Your task to perform on an android device: Show the shopping cart on newegg.com. Image 0: 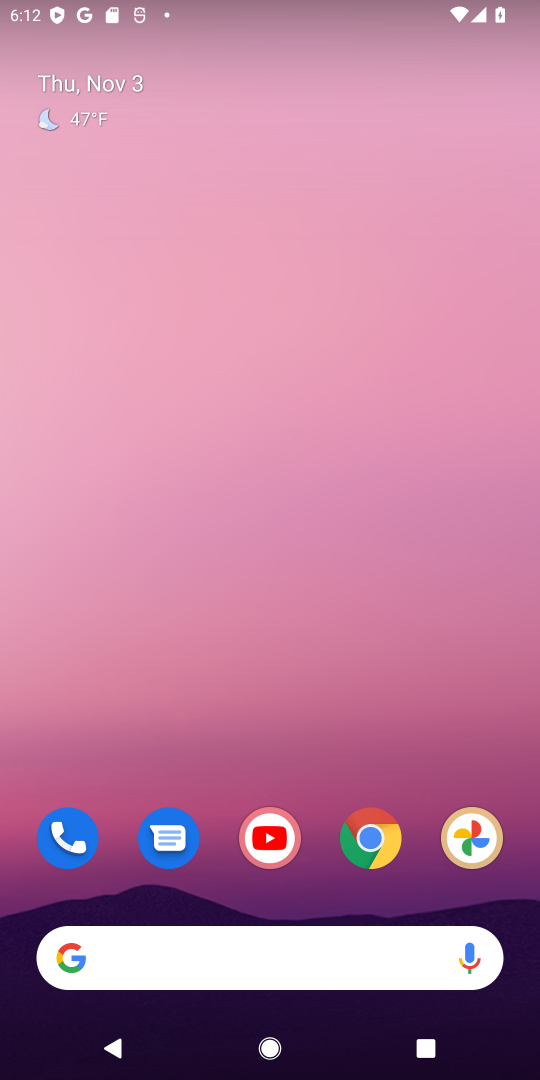
Step 0: click (264, 964)
Your task to perform on an android device: Show the shopping cart on newegg.com. Image 1: 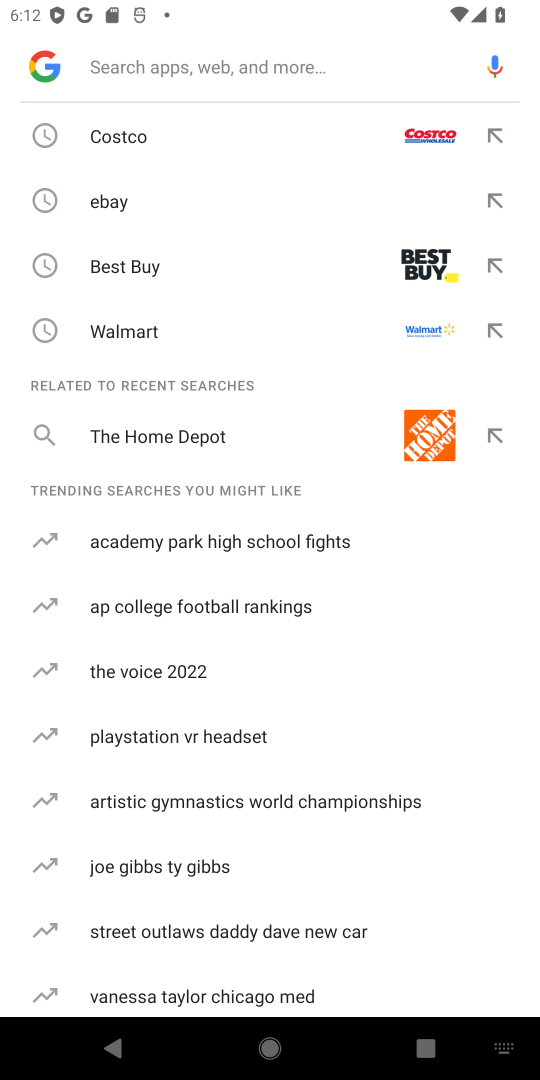
Step 1: type "newegg.com"
Your task to perform on an android device: Show the shopping cart on newegg.com. Image 2: 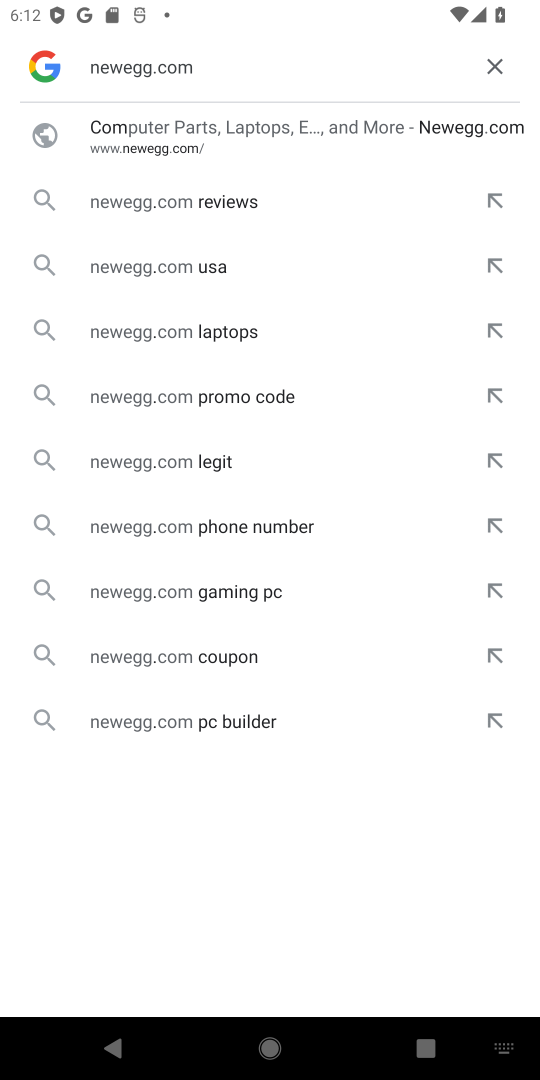
Step 2: click (178, 138)
Your task to perform on an android device: Show the shopping cart on newegg.com. Image 3: 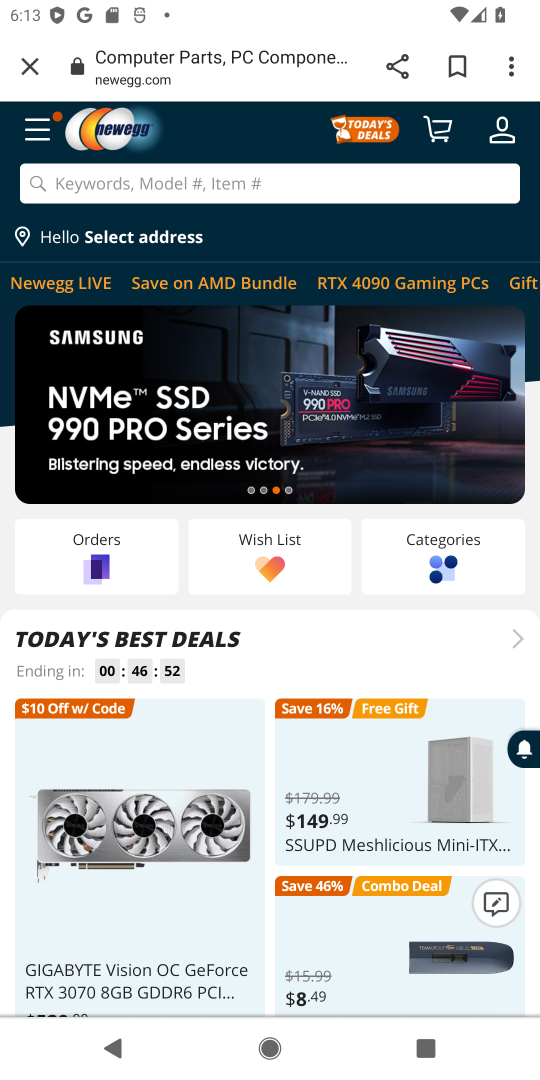
Step 3: click (178, 178)
Your task to perform on an android device: Show the shopping cart on newegg.com. Image 4: 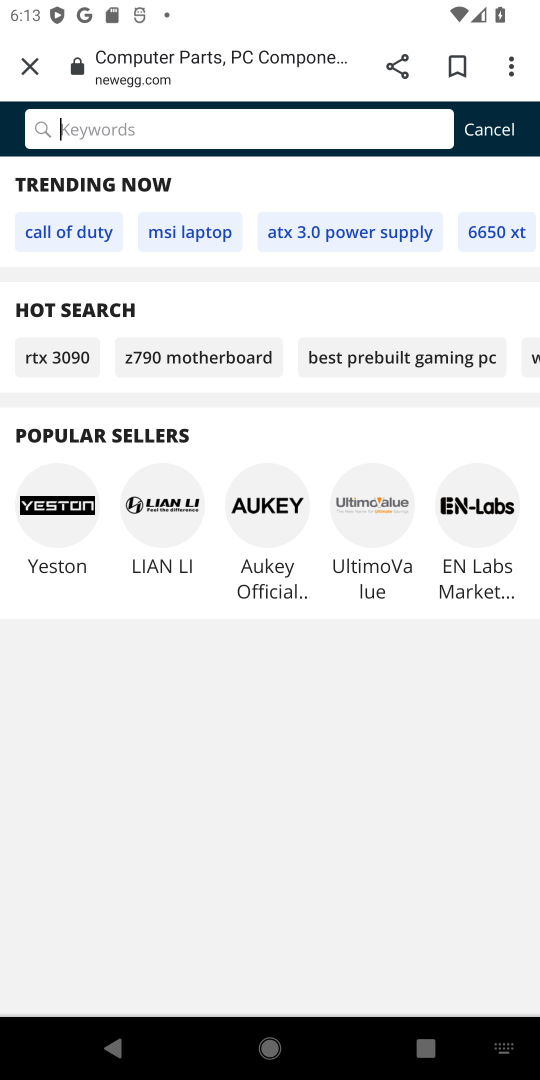
Step 4: click (479, 129)
Your task to perform on an android device: Show the shopping cart on newegg.com. Image 5: 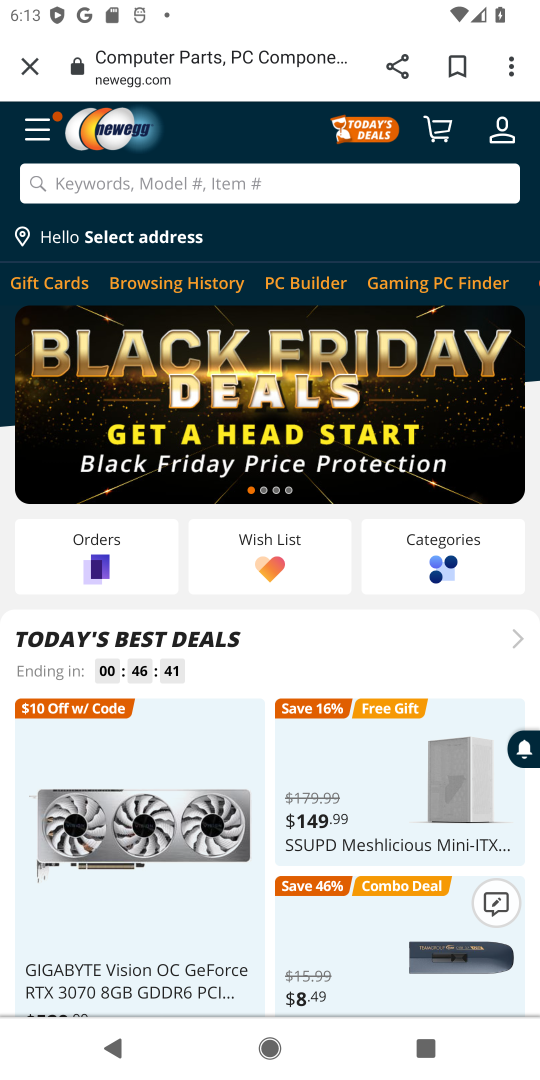
Step 5: click (433, 145)
Your task to perform on an android device: Show the shopping cart on newegg.com. Image 6: 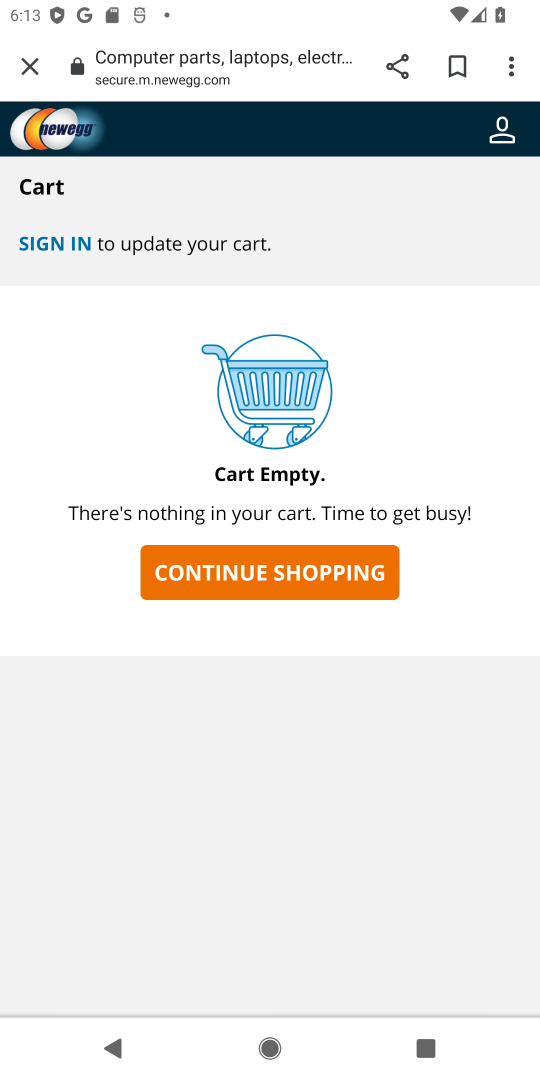
Step 6: task complete